Your task to perform on an android device: turn off notifications in google photos Image 0: 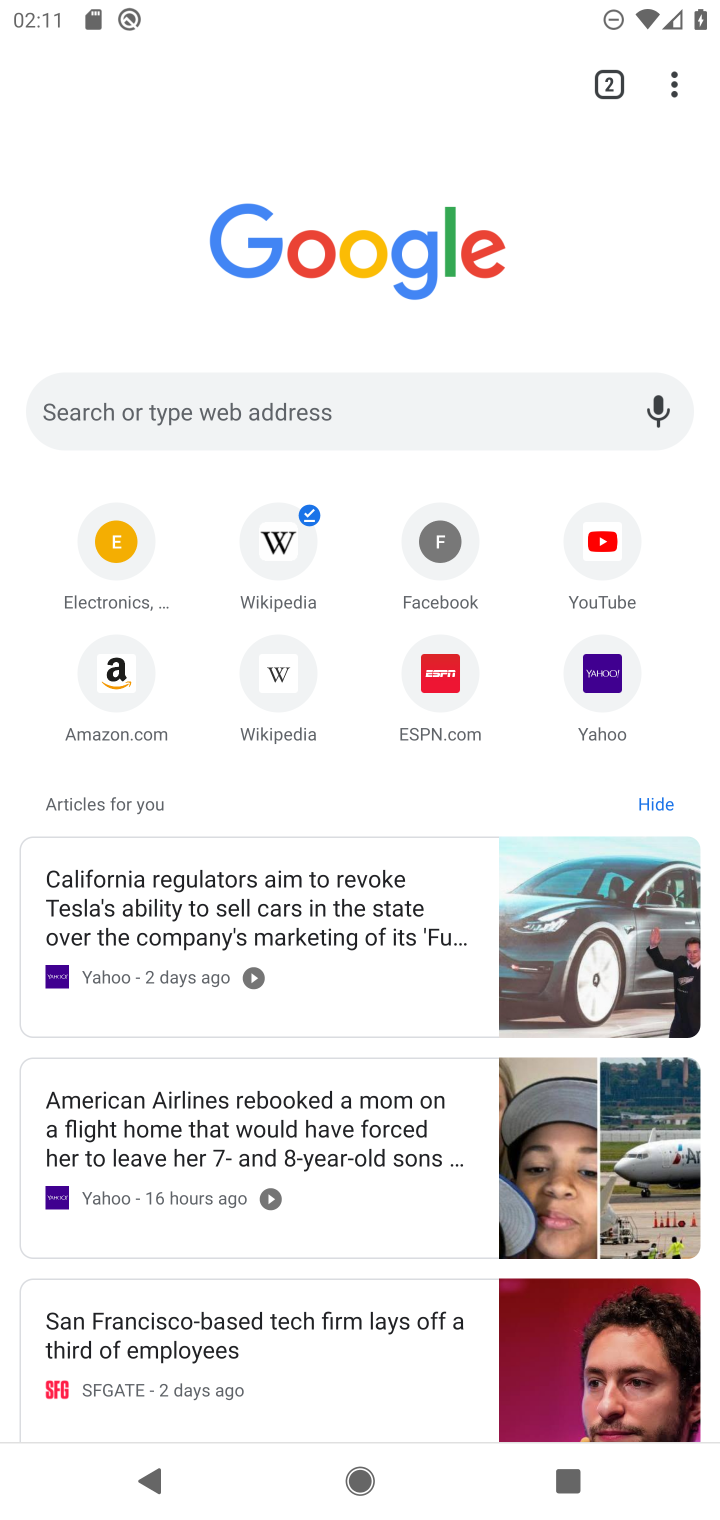
Step 0: press home button
Your task to perform on an android device: turn off notifications in google photos Image 1: 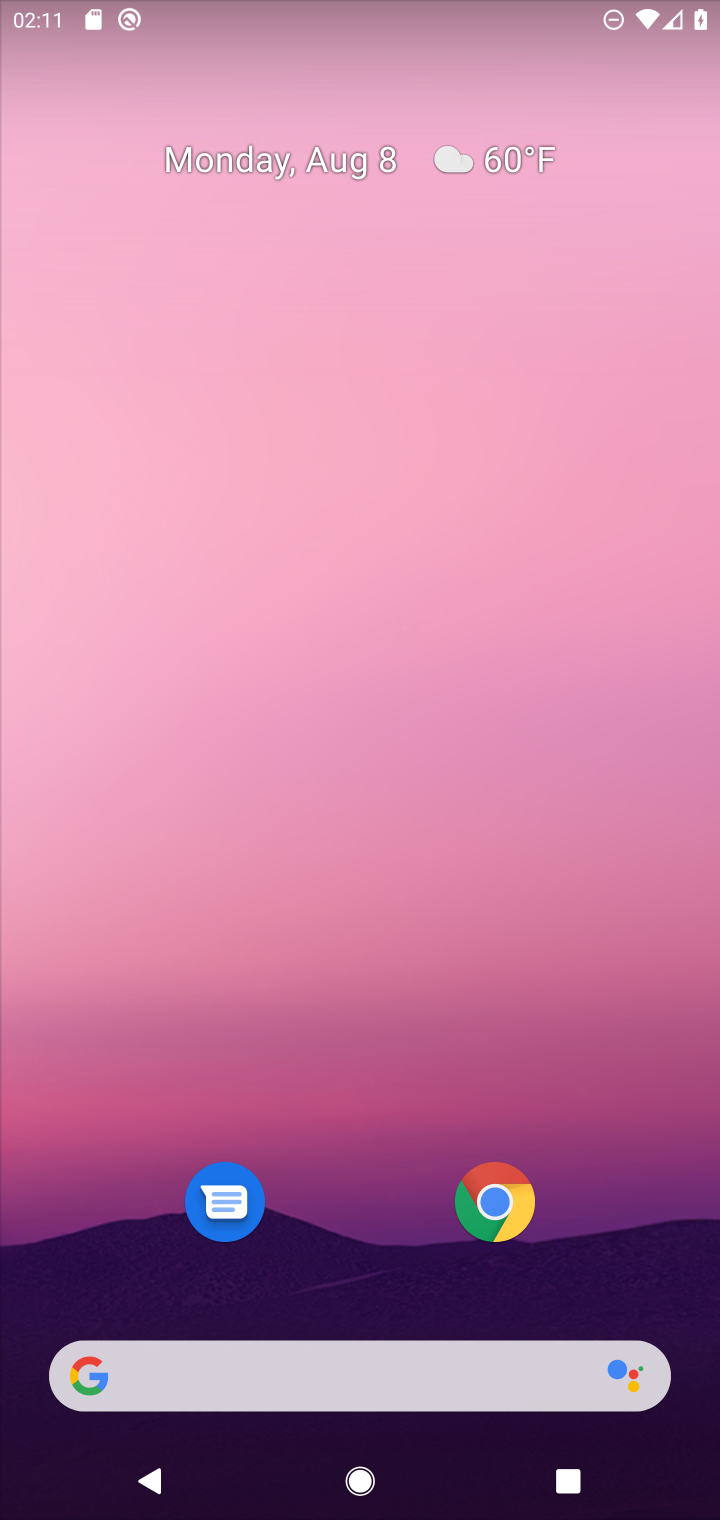
Step 1: drag from (403, 1013) to (490, 89)
Your task to perform on an android device: turn off notifications in google photos Image 2: 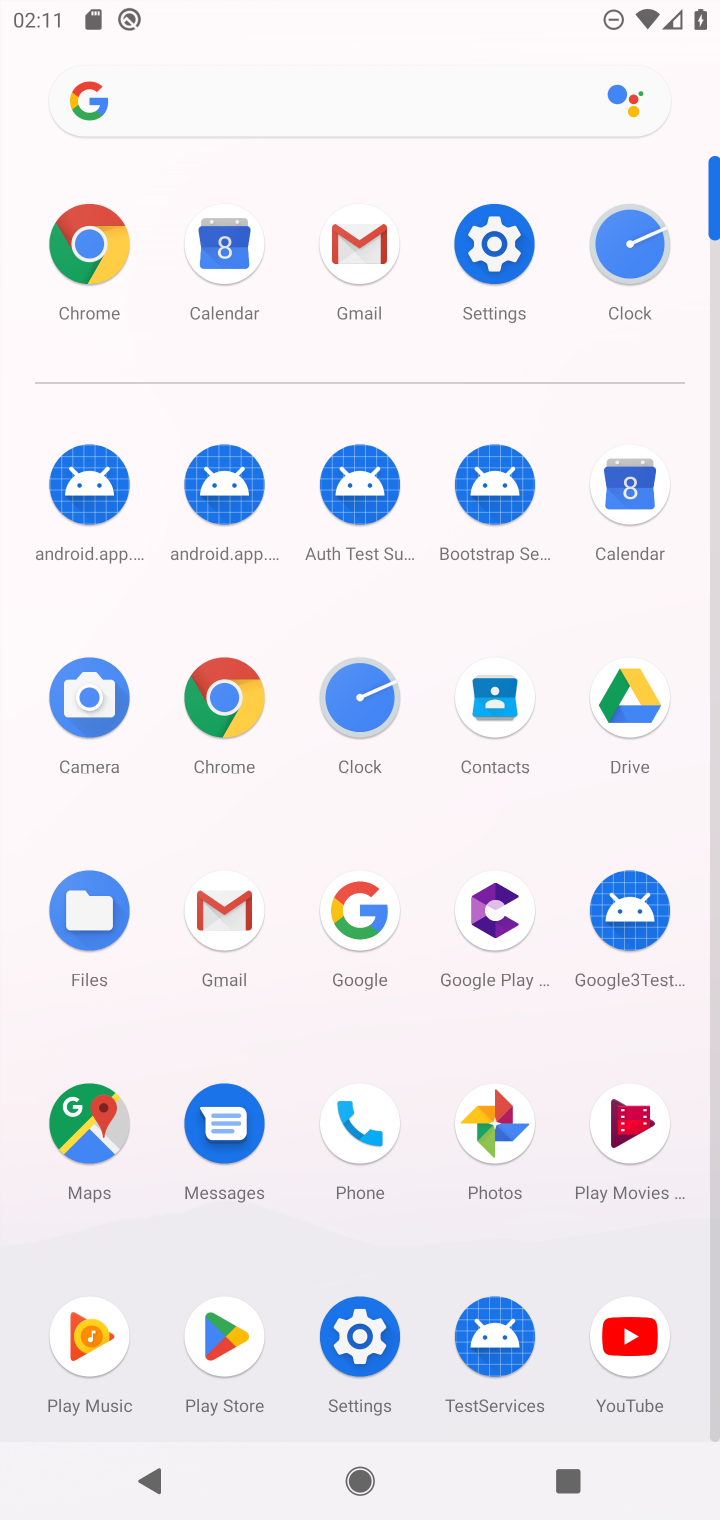
Step 2: click (492, 1124)
Your task to perform on an android device: turn off notifications in google photos Image 3: 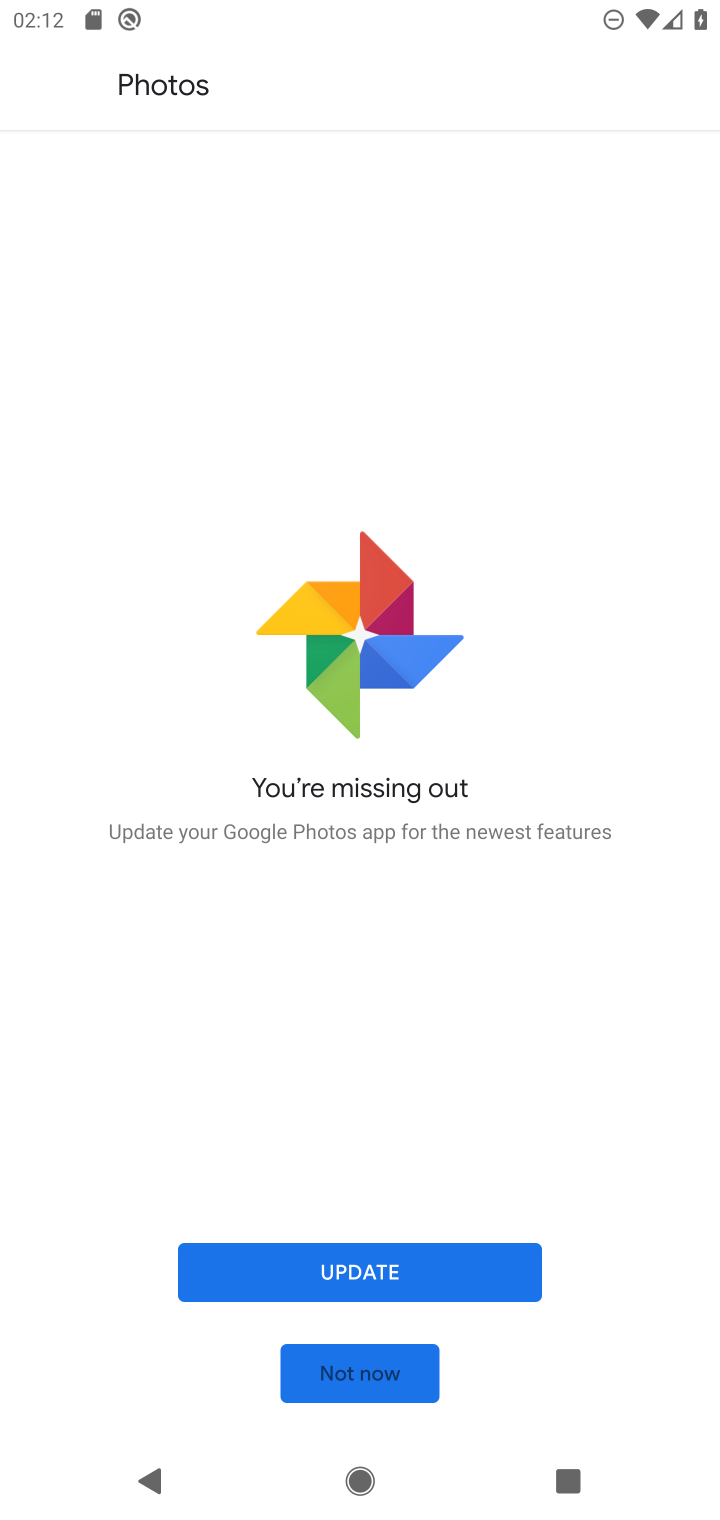
Step 3: click (386, 1374)
Your task to perform on an android device: turn off notifications in google photos Image 4: 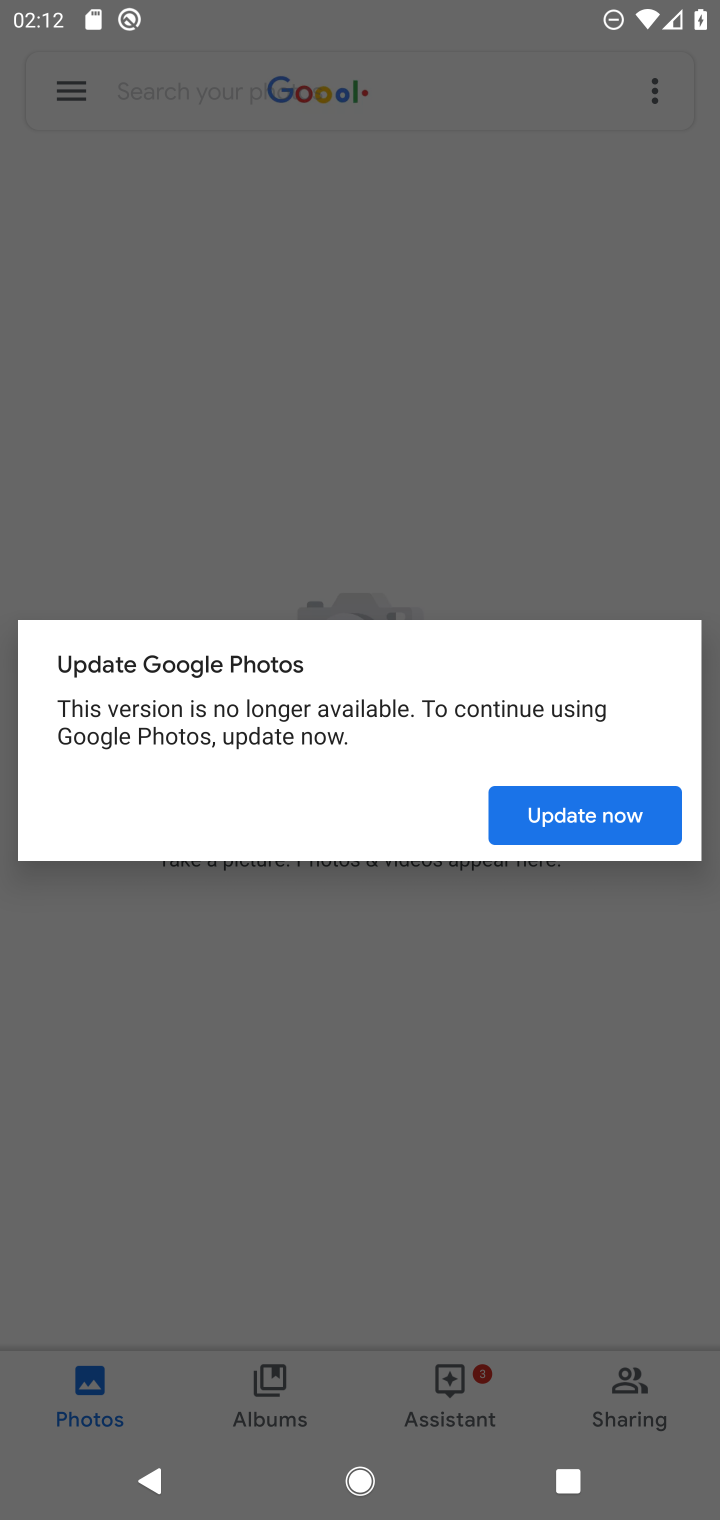
Step 4: click (604, 807)
Your task to perform on an android device: turn off notifications in google photos Image 5: 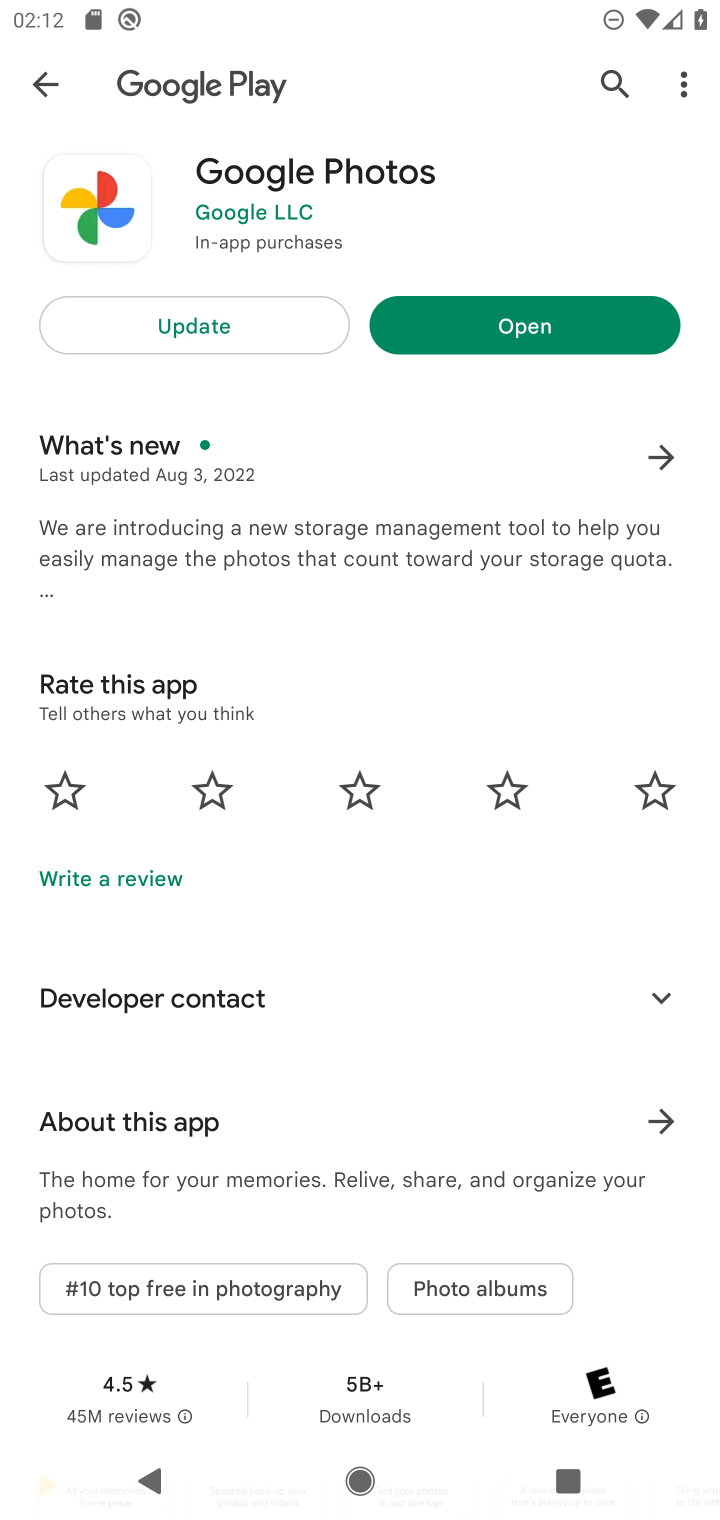
Step 5: click (220, 314)
Your task to perform on an android device: turn off notifications in google photos Image 6: 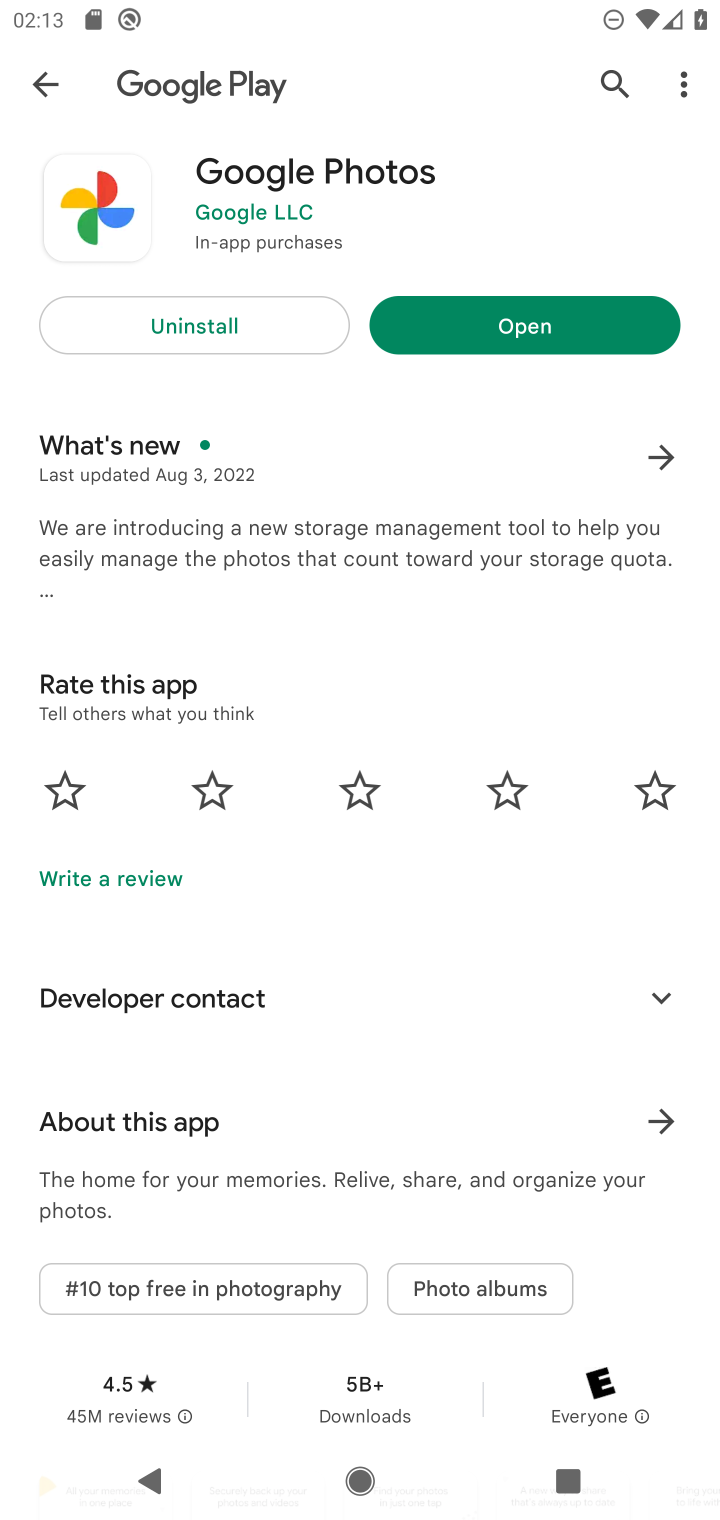
Step 6: click (507, 341)
Your task to perform on an android device: turn off notifications in google photos Image 7: 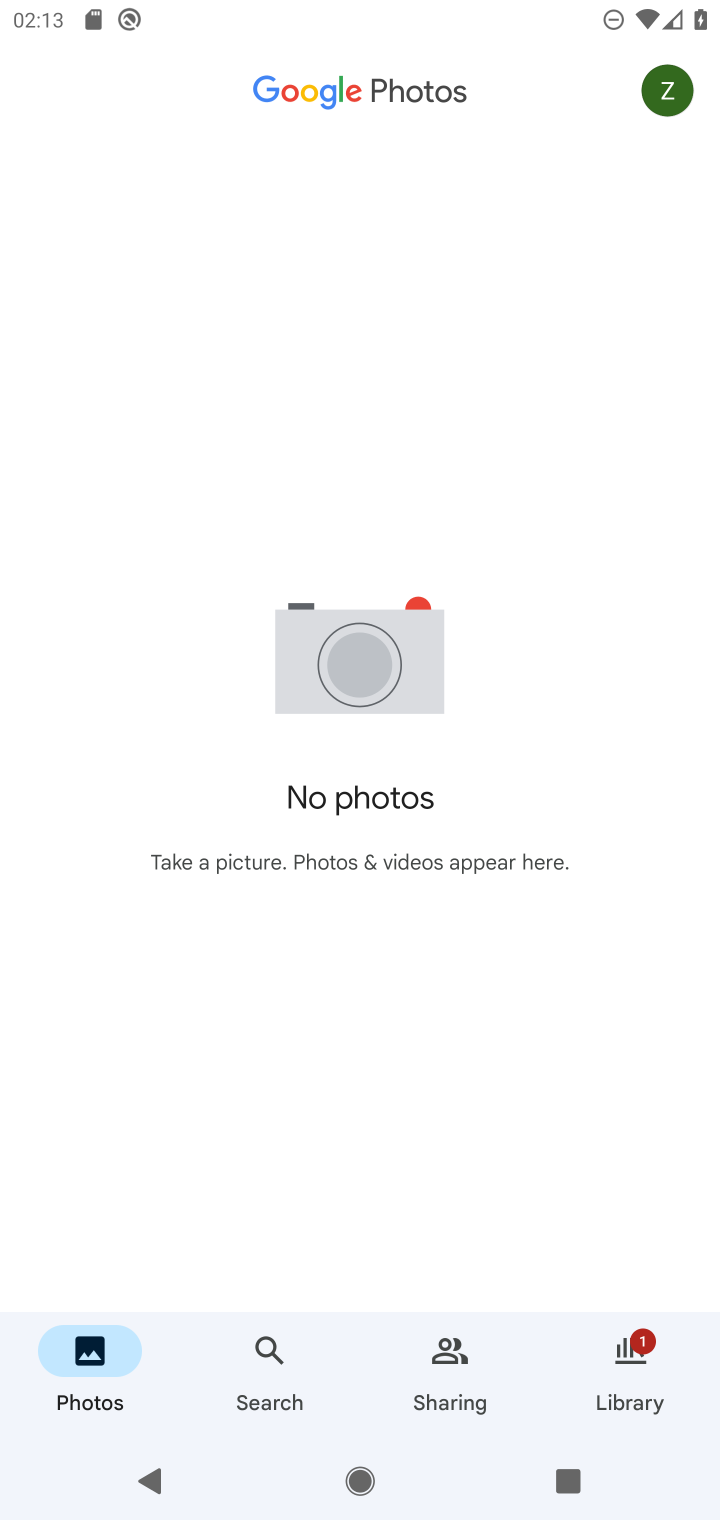
Step 7: click (667, 103)
Your task to perform on an android device: turn off notifications in google photos Image 8: 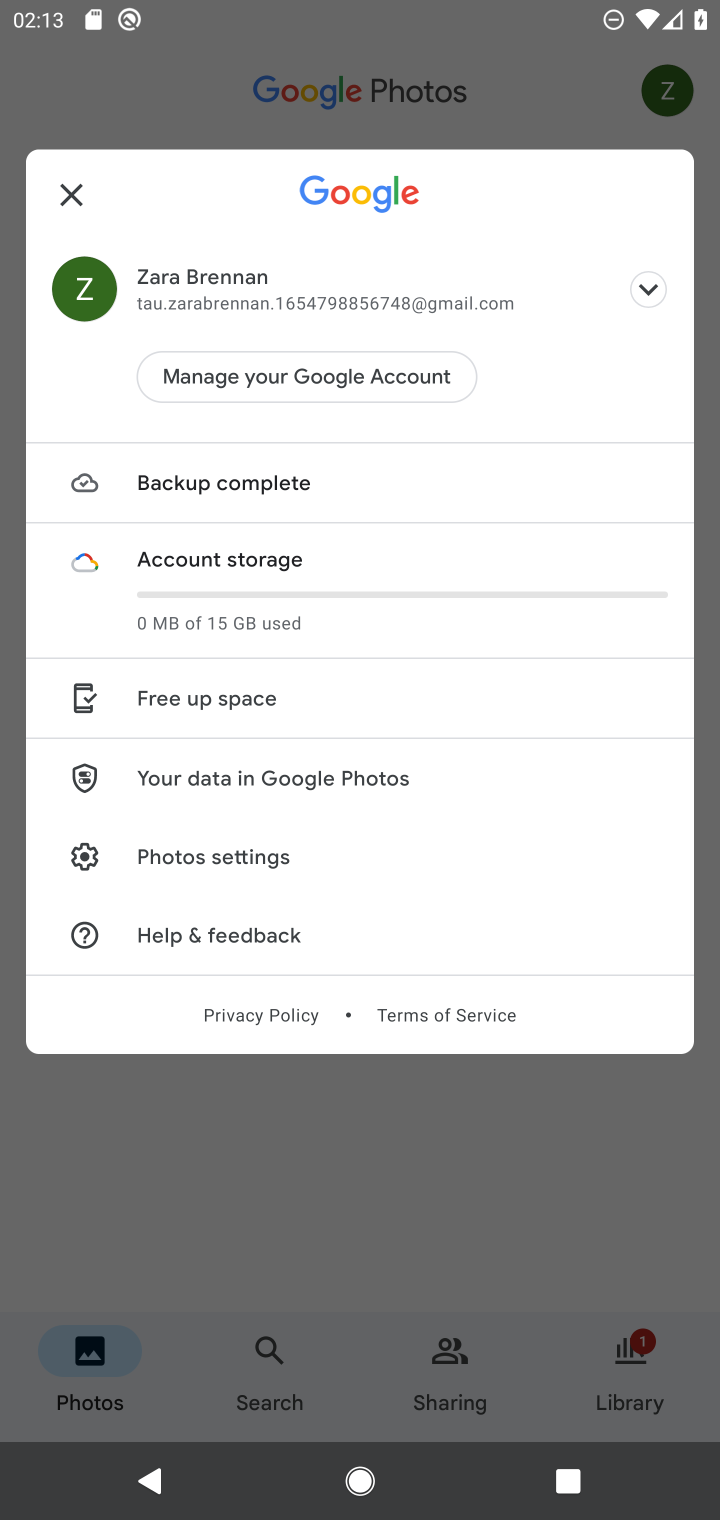
Step 8: click (307, 859)
Your task to perform on an android device: turn off notifications in google photos Image 9: 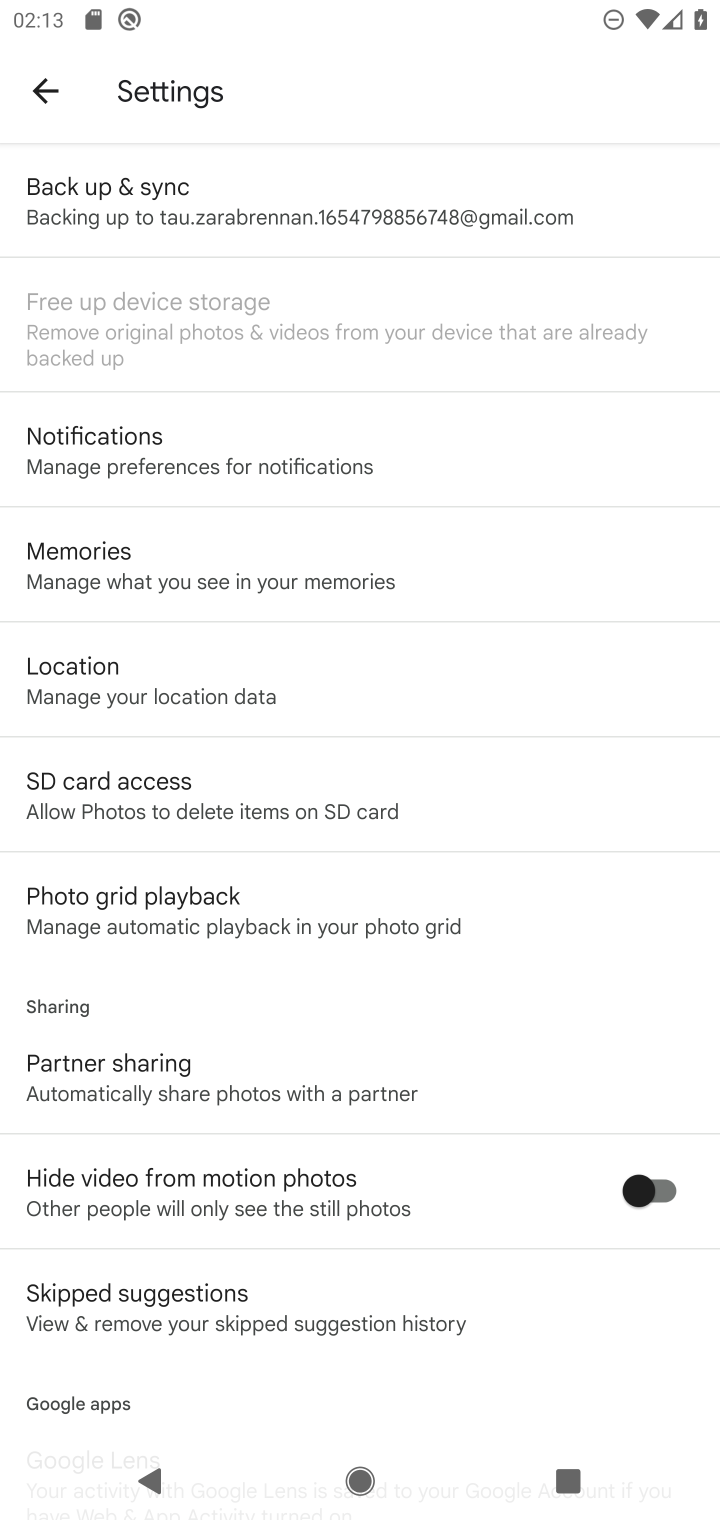
Step 9: click (441, 448)
Your task to perform on an android device: turn off notifications in google photos Image 10: 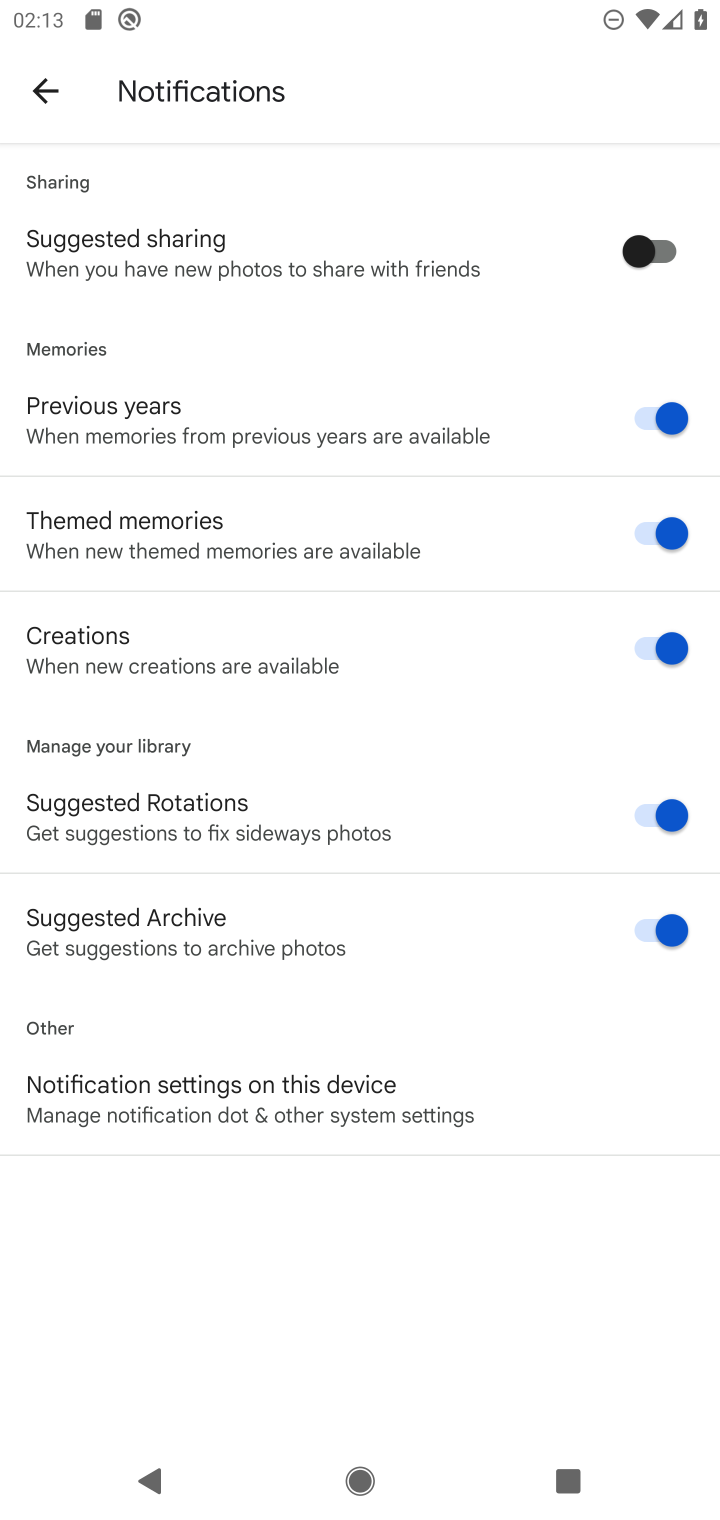
Step 10: click (383, 1088)
Your task to perform on an android device: turn off notifications in google photos Image 11: 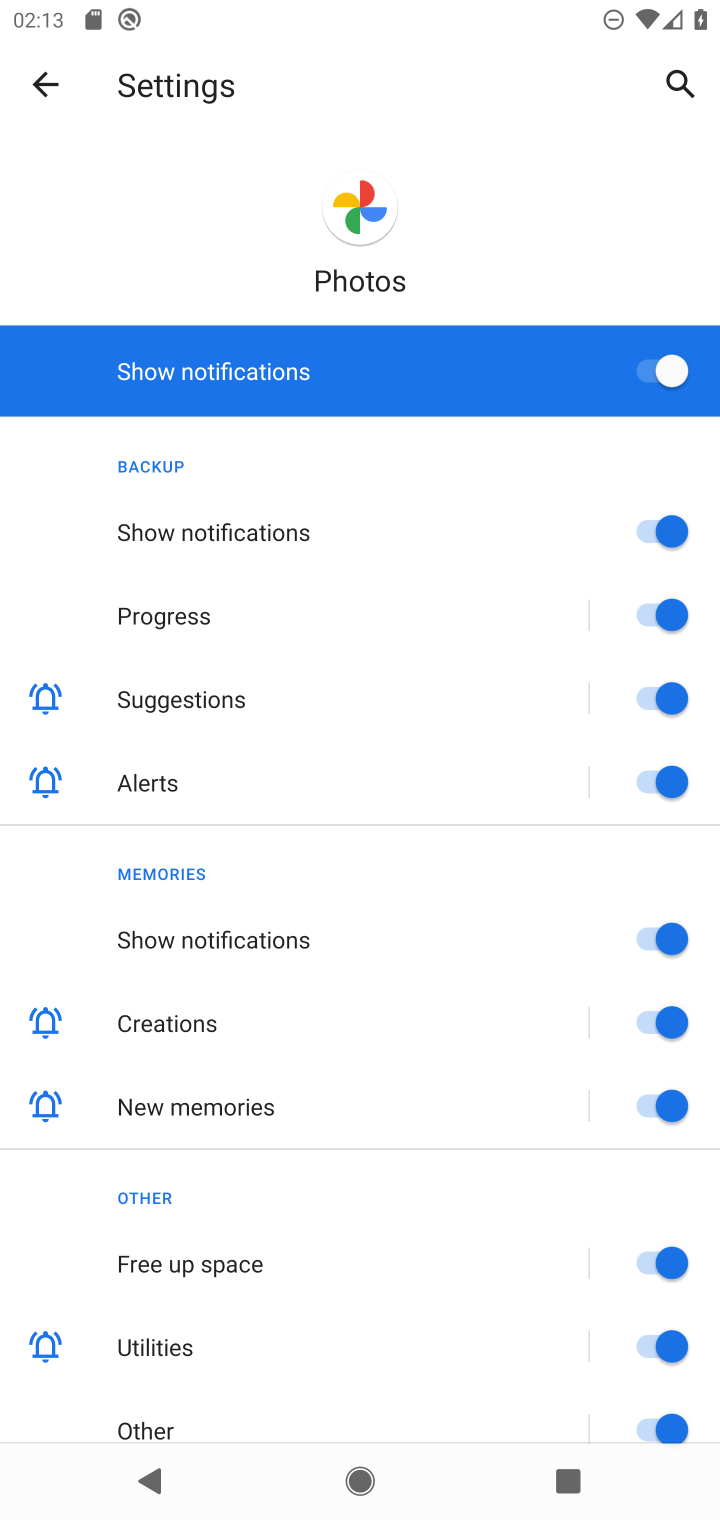
Step 11: click (668, 373)
Your task to perform on an android device: turn off notifications in google photos Image 12: 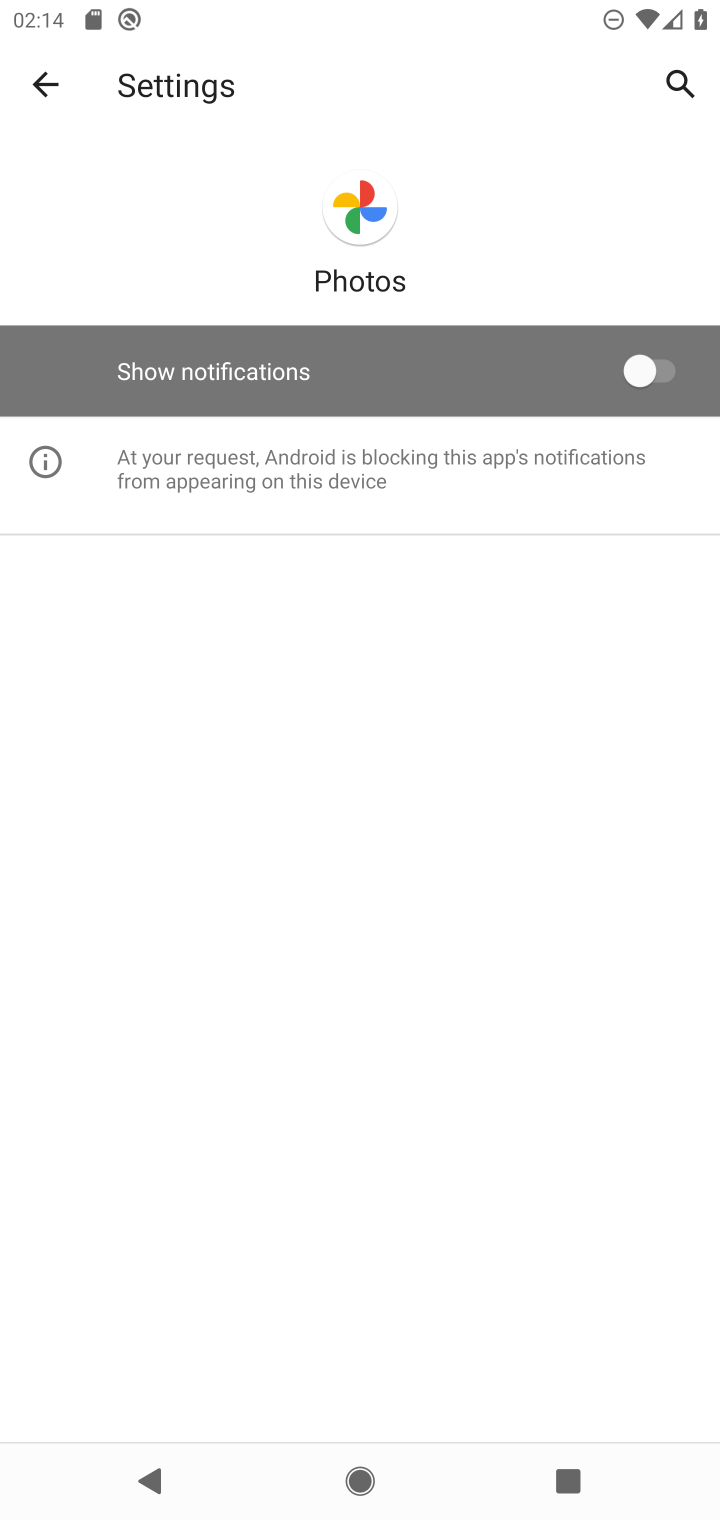
Step 12: task complete